Your task to perform on an android device: Open Chrome and go to settings Image 0: 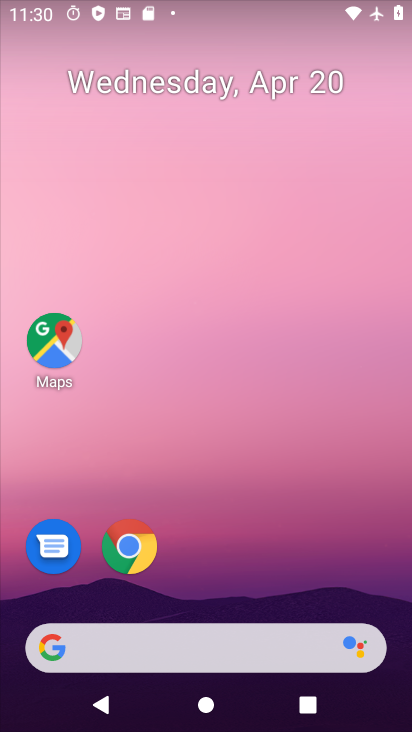
Step 0: drag from (169, 638) to (333, 187)
Your task to perform on an android device: Open Chrome and go to settings Image 1: 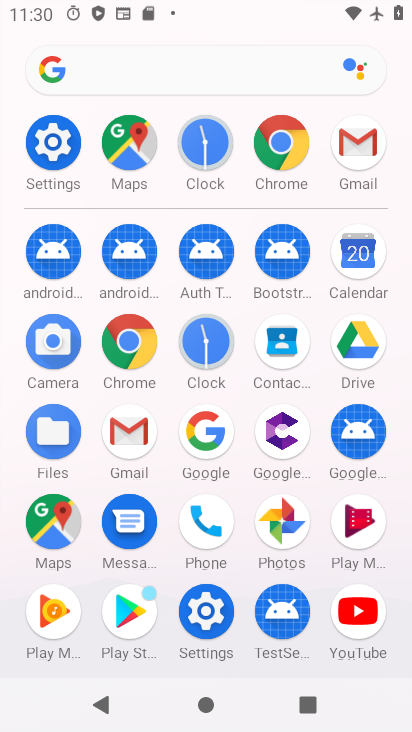
Step 1: click (280, 158)
Your task to perform on an android device: Open Chrome and go to settings Image 2: 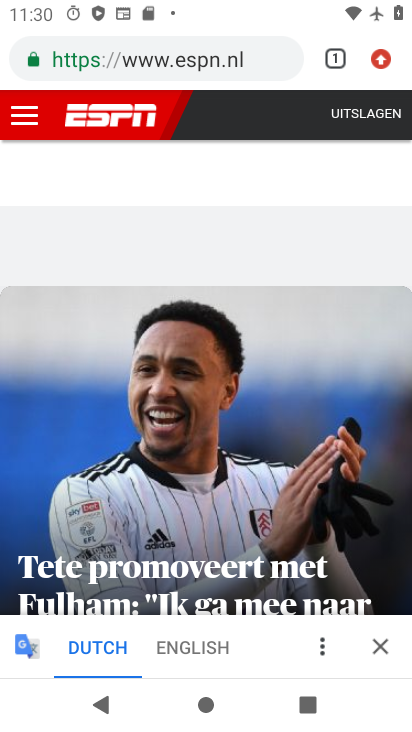
Step 2: click (373, 67)
Your task to perform on an android device: Open Chrome and go to settings Image 3: 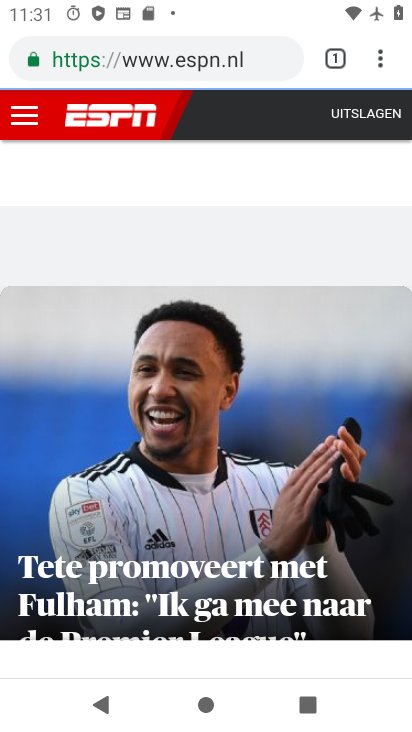
Step 3: click (371, 68)
Your task to perform on an android device: Open Chrome and go to settings Image 4: 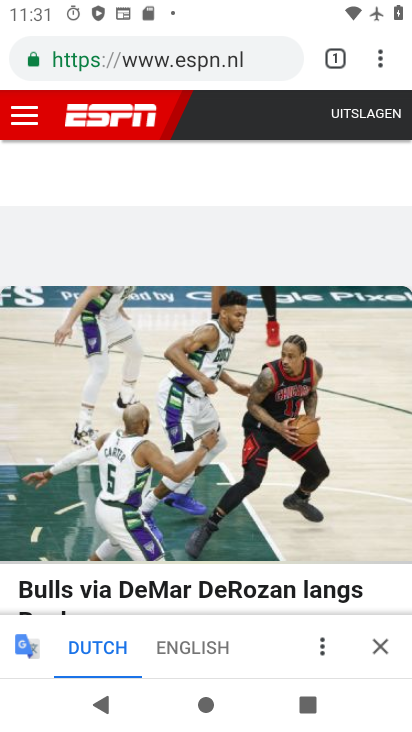
Step 4: click (369, 72)
Your task to perform on an android device: Open Chrome and go to settings Image 5: 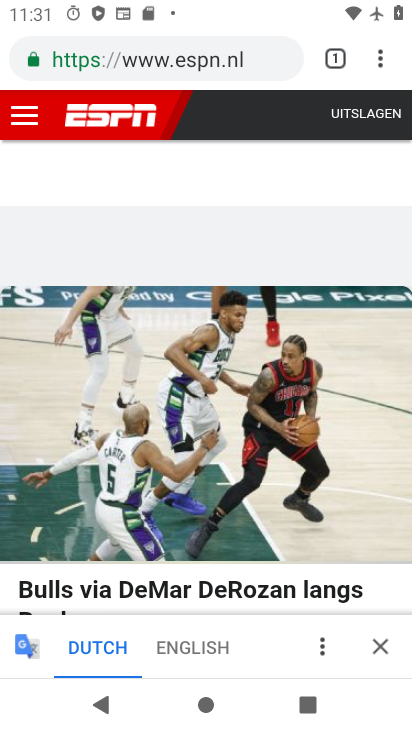
Step 5: click (375, 68)
Your task to perform on an android device: Open Chrome and go to settings Image 6: 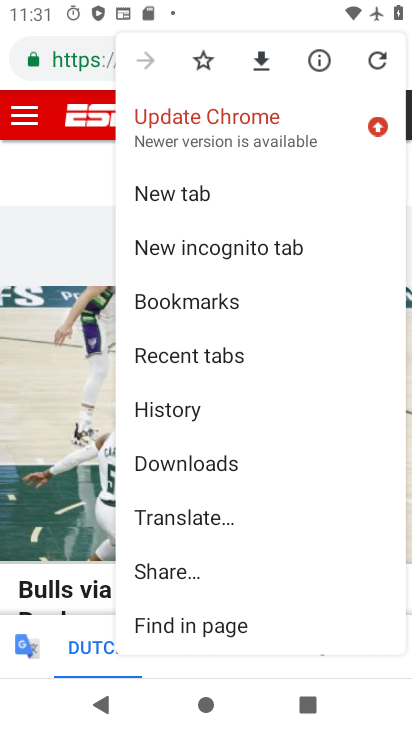
Step 6: drag from (254, 521) to (404, 136)
Your task to perform on an android device: Open Chrome and go to settings Image 7: 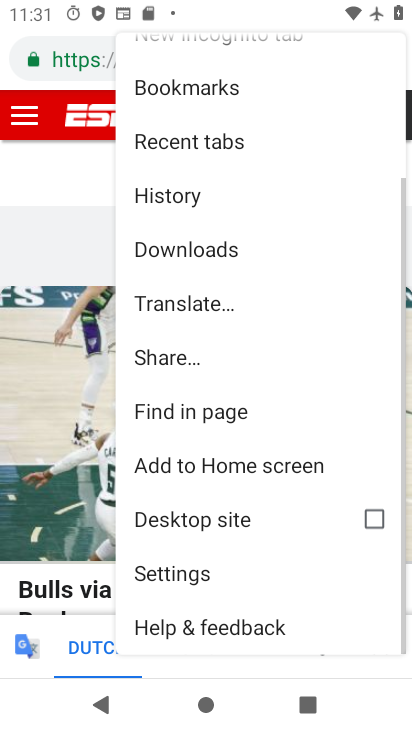
Step 7: click (184, 581)
Your task to perform on an android device: Open Chrome and go to settings Image 8: 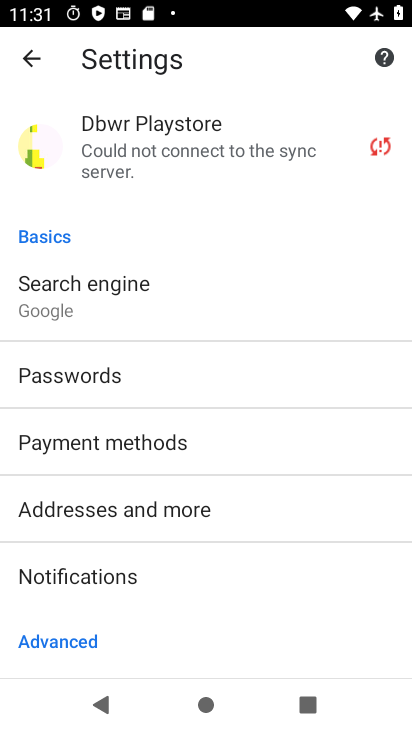
Step 8: task complete